Your task to perform on an android device: Go to calendar. Show me events next week Image 0: 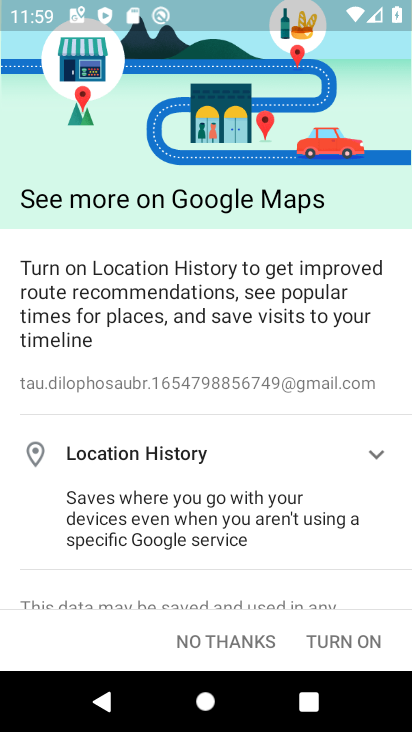
Step 0: press home button
Your task to perform on an android device: Go to calendar. Show me events next week Image 1: 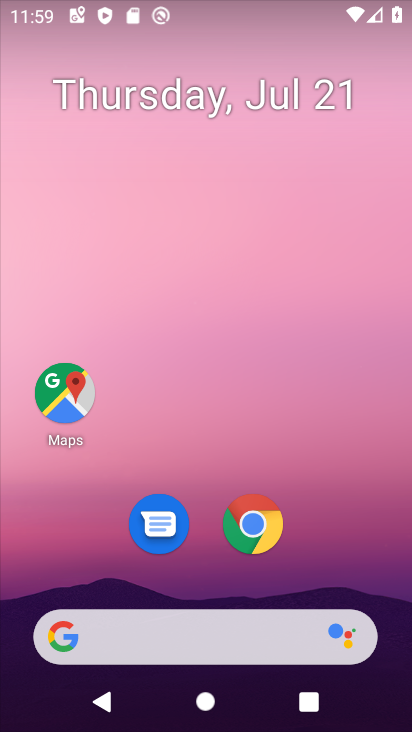
Step 1: drag from (336, 570) to (314, 24)
Your task to perform on an android device: Go to calendar. Show me events next week Image 2: 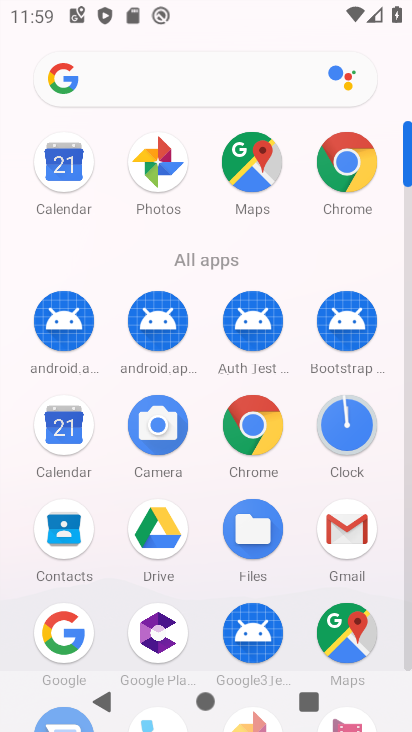
Step 2: click (71, 164)
Your task to perform on an android device: Go to calendar. Show me events next week Image 3: 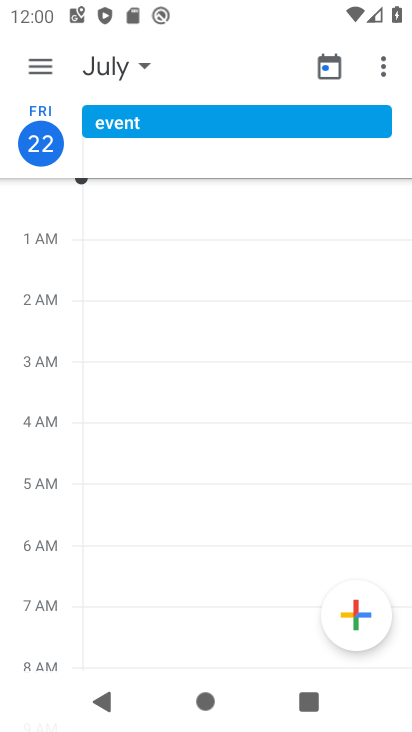
Step 3: click (34, 67)
Your task to perform on an android device: Go to calendar. Show me events next week Image 4: 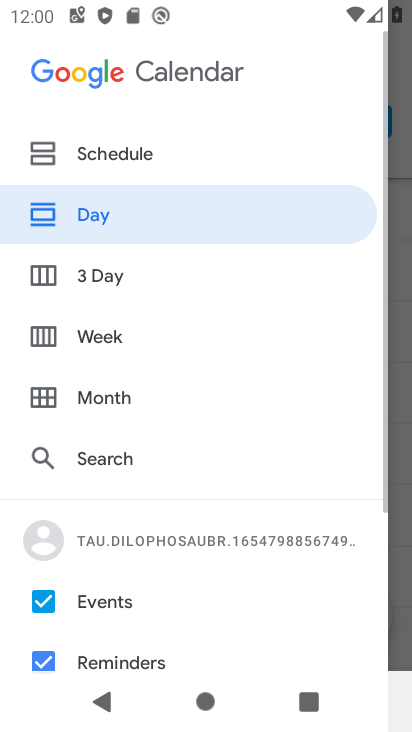
Step 4: click (40, 328)
Your task to perform on an android device: Go to calendar. Show me events next week Image 5: 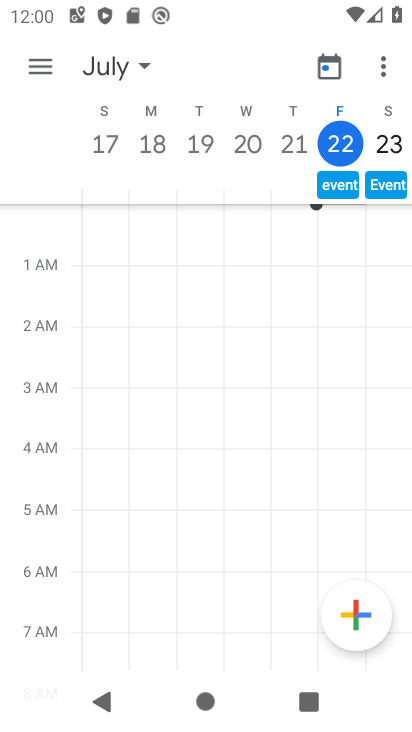
Step 5: task complete